Your task to perform on an android device: View the shopping cart on ebay. Image 0: 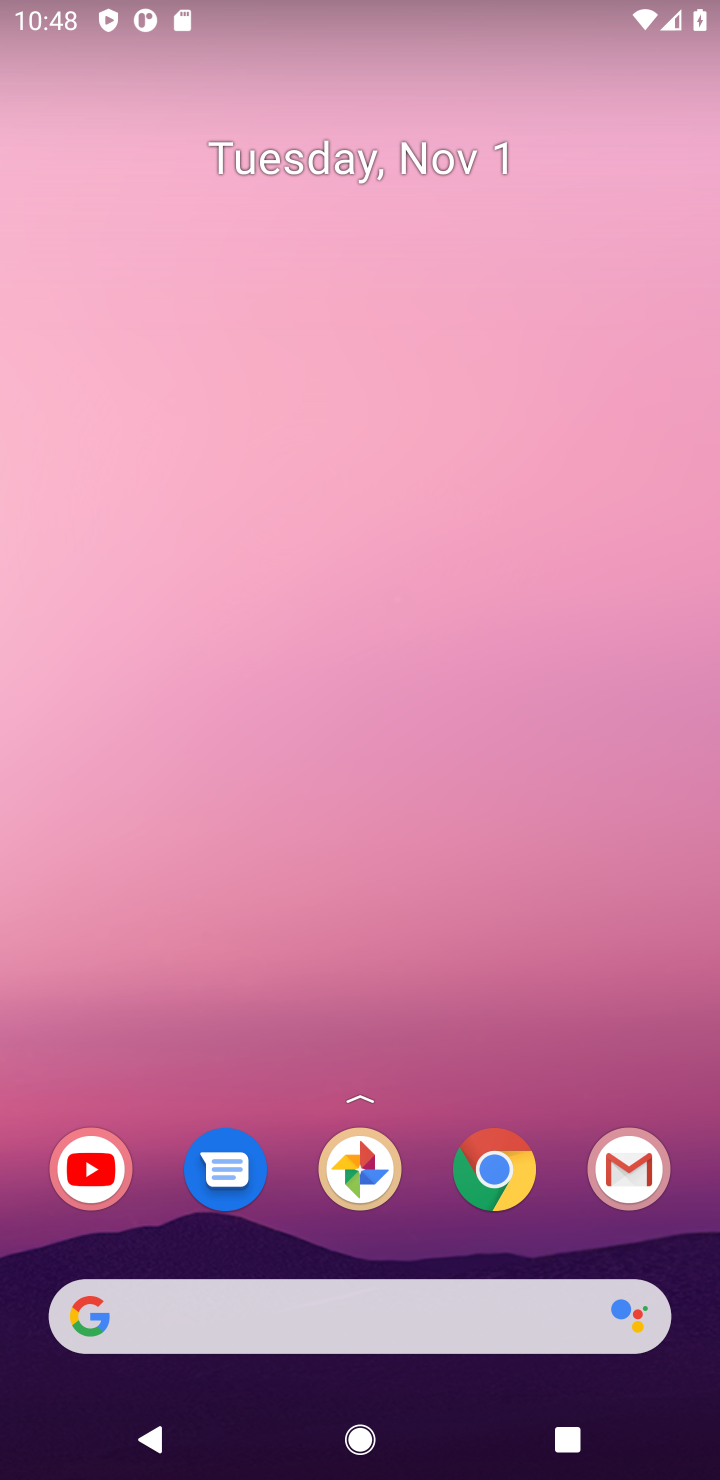
Step 0: click (493, 1157)
Your task to perform on an android device: View the shopping cart on ebay. Image 1: 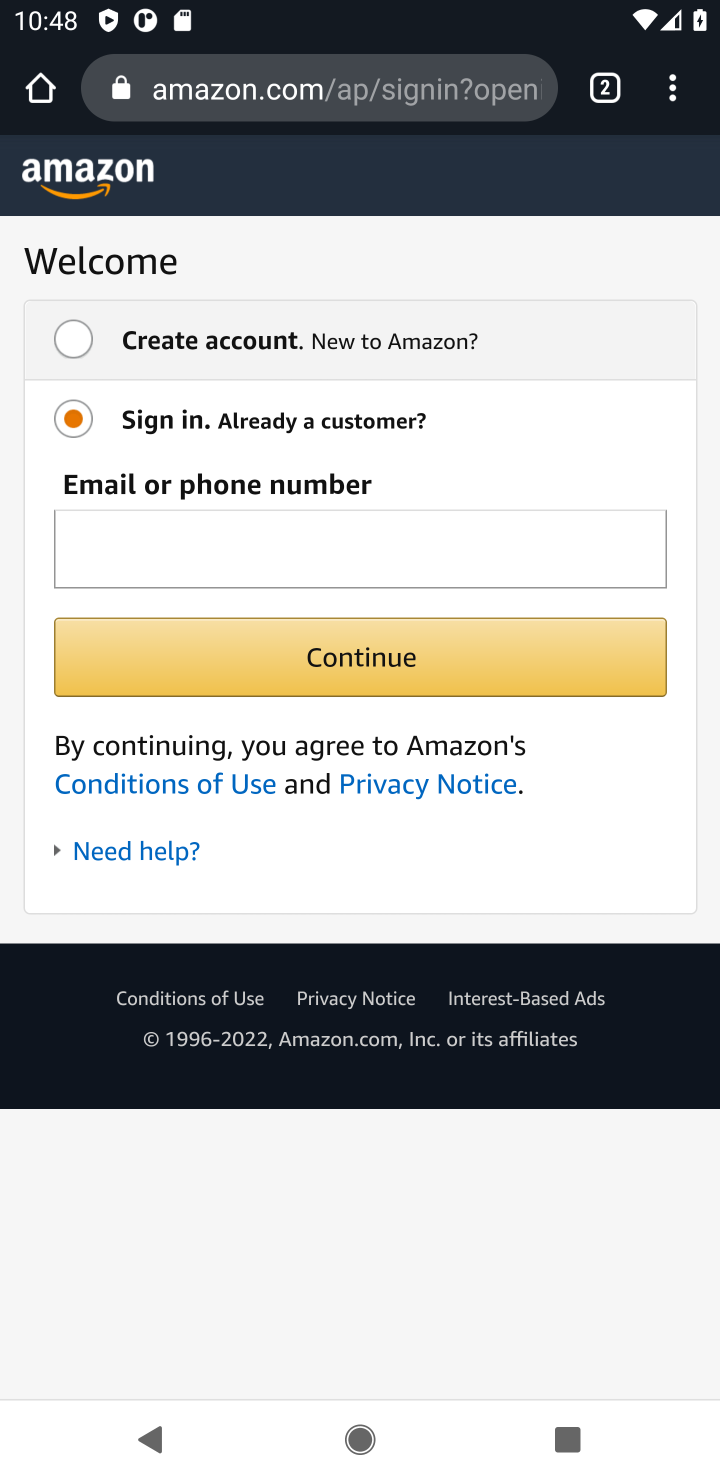
Step 1: click (440, 100)
Your task to perform on an android device: View the shopping cart on ebay. Image 2: 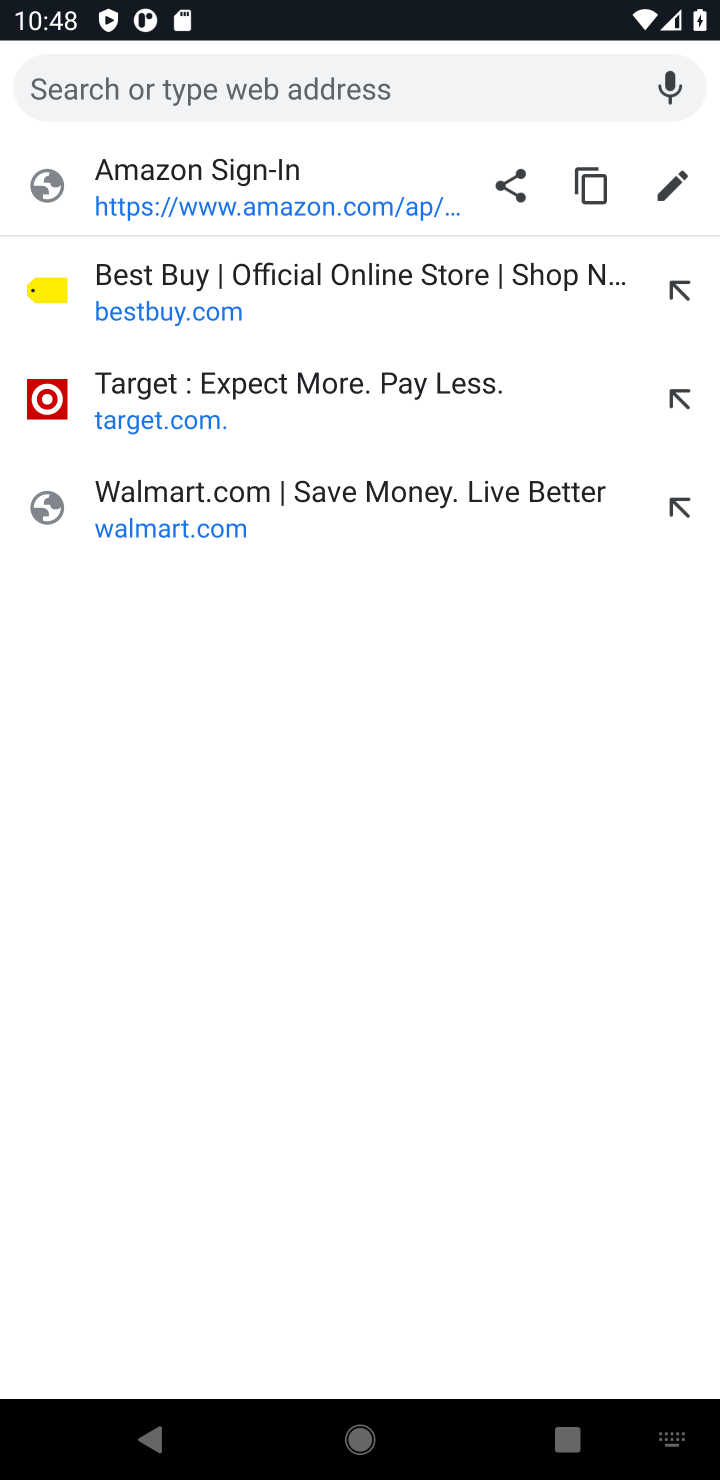
Step 2: type "ebay"
Your task to perform on an android device: View the shopping cart on ebay. Image 3: 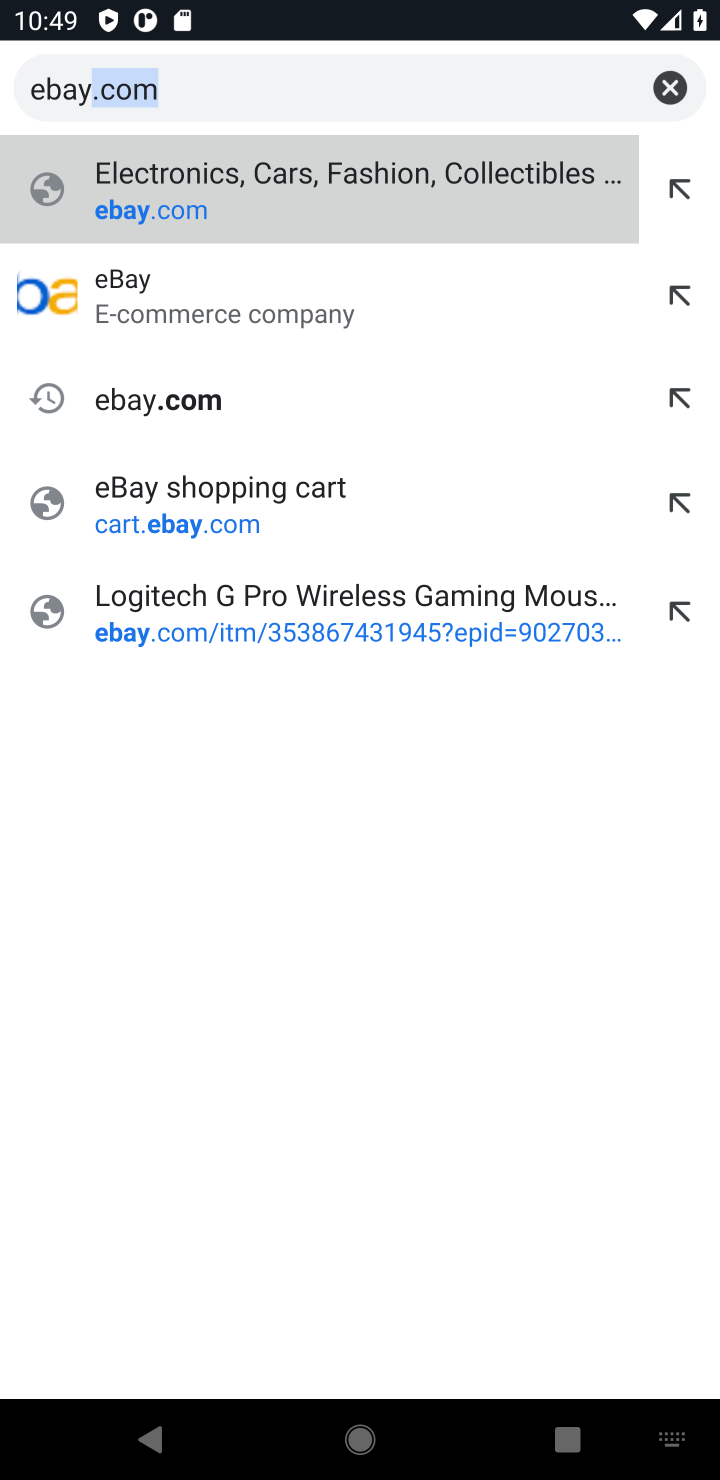
Step 3: click (167, 408)
Your task to perform on an android device: View the shopping cart on ebay. Image 4: 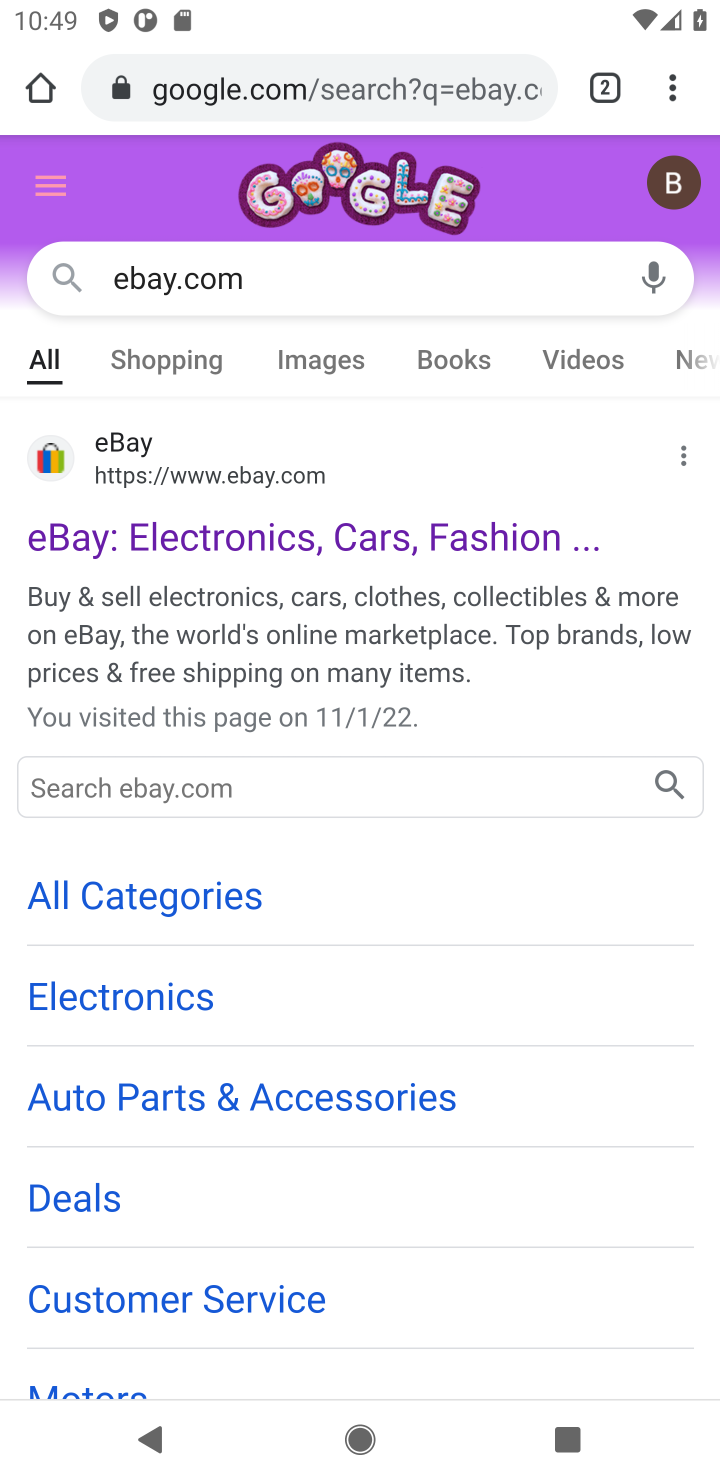
Step 4: click (218, 473)
Your task to perform on an android device: View the shopping cart on ebay. Image 5: 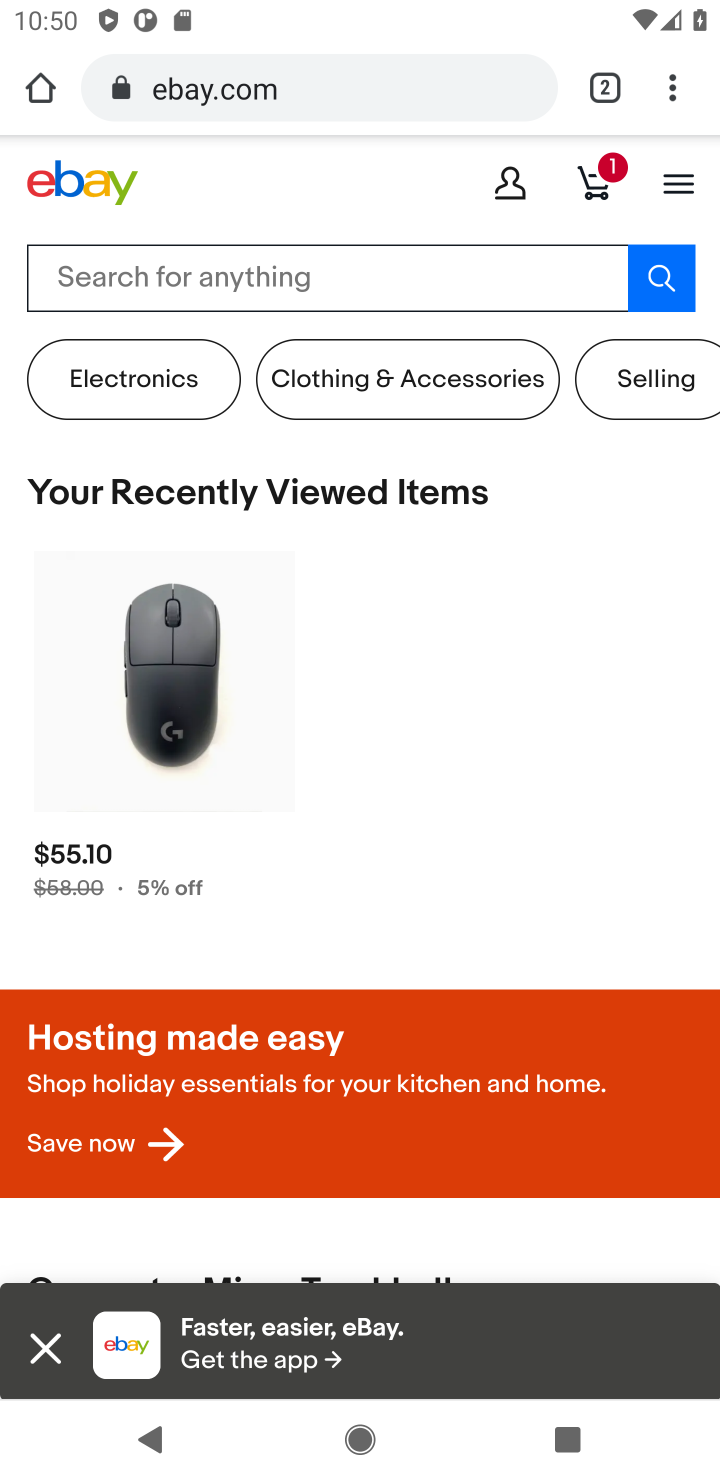
Step 5: click (603, 181)
Your task to perform on an android device: View the shopping cart on ebay. Image 6: 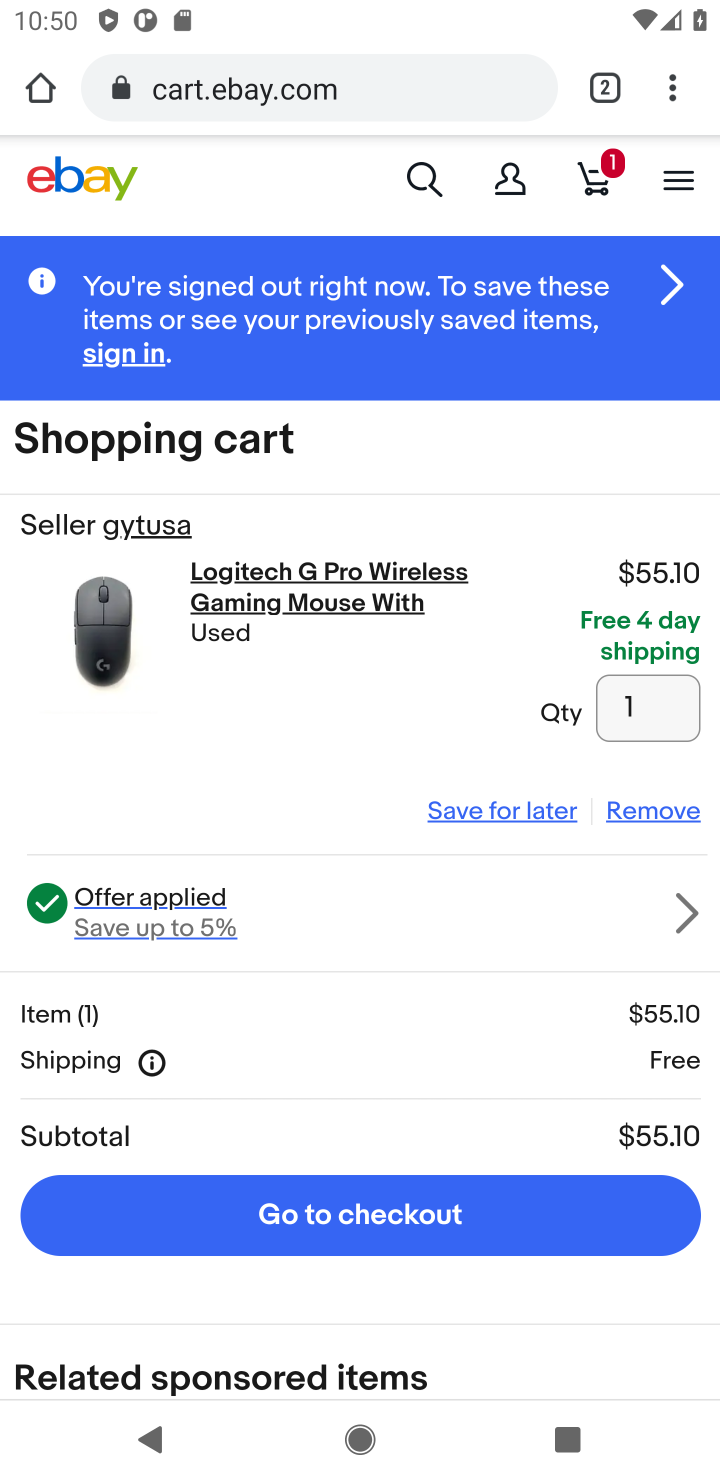
Step 6: task complete